Your task to perform on an android device: Open display settings Image 0: 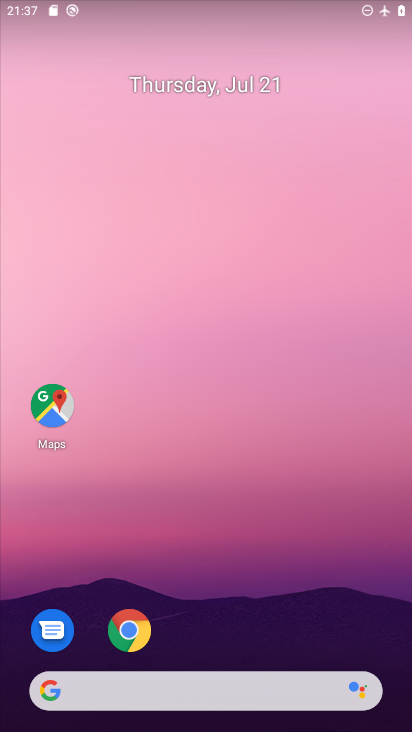
Step 0: drag from (359, 625) to (350, 90)
Your task to perform on an android device: Open display settings Image 1: 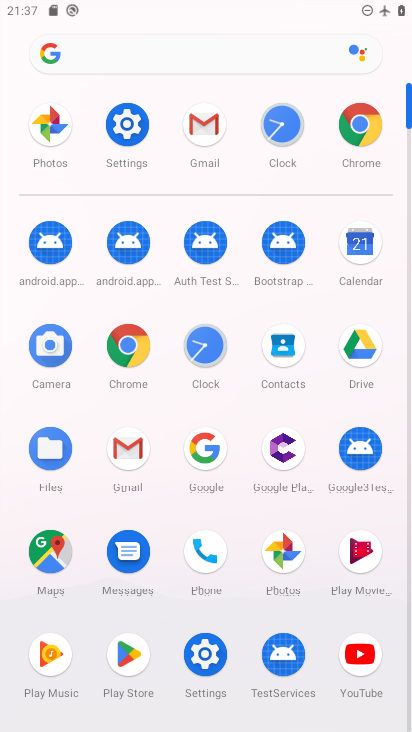
Step 1: click (121, 115)
Your task to perform on an android device: Open display settings Image 2: 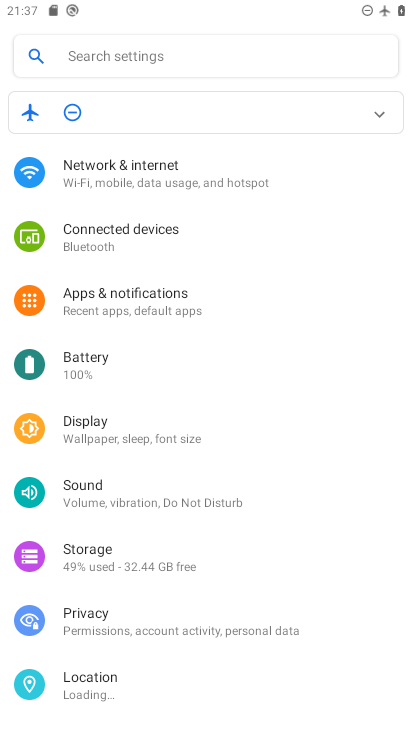
Step 2: click (123, 437)
Your task to perform on an android device: Open display settings Image 3: 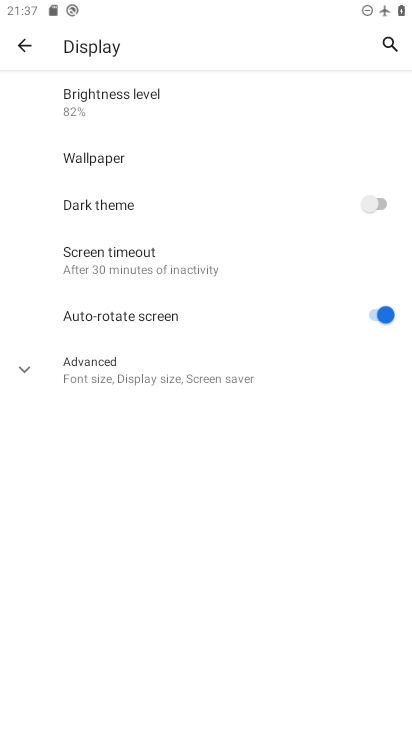
Step 3: task complete